Your task to perform on an android device: Search for "razer kraken" on bestbuy, select the first entry, add it to the cart, then select checkout. Image 0: 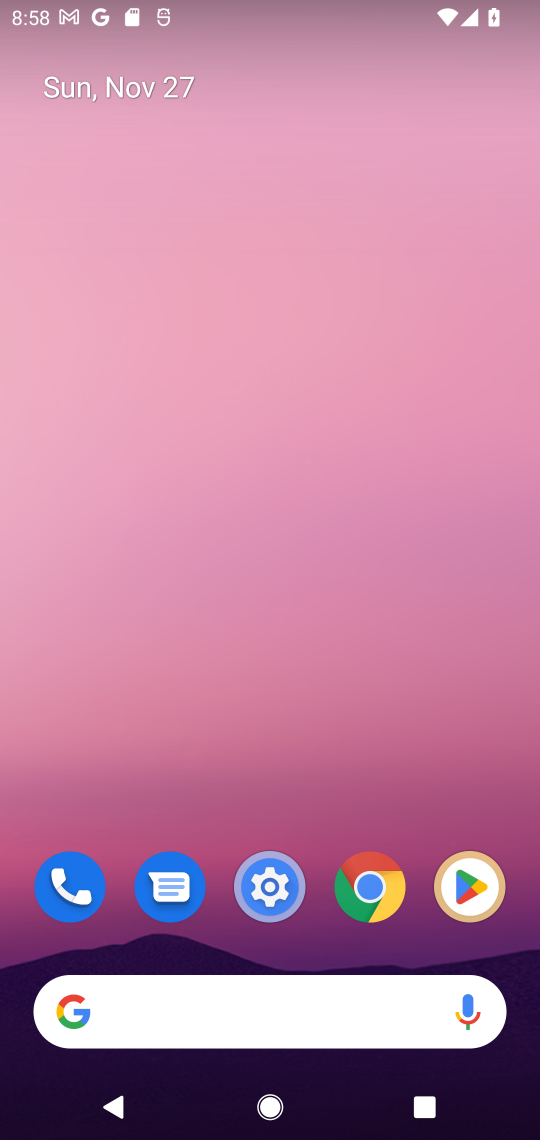
Step 0: click (164, 1018)
Your task to perform on an android device: Search for "razer kraken" on bestbuy, select the first entry, add it to the cart, then select checkout. Image 1: 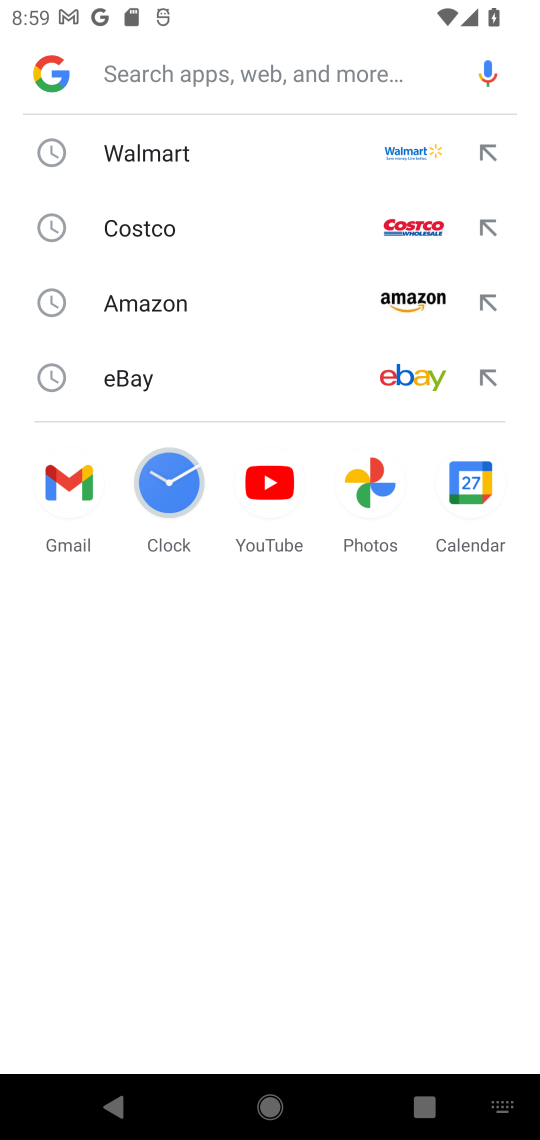
Step 1: type "bestbuy"
Your task to perform on an android device: Search for "razer kraken" on bestbuy, select the first entry, add it to the cart, then select checkout. Image 2: 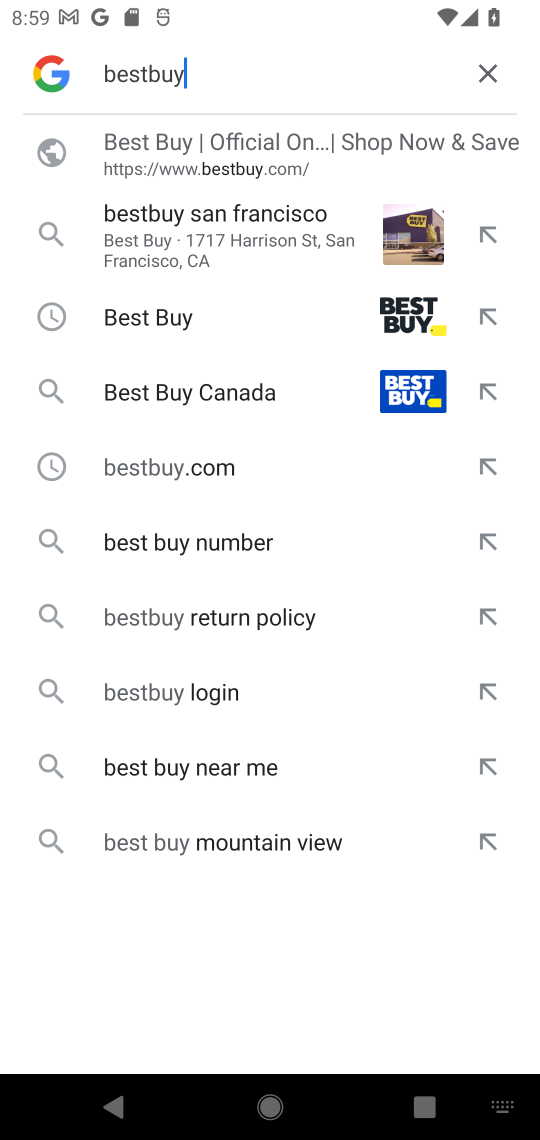
Step 2: click (120, 177)
Your task to perform on an android device: Search for "razer kraken" on bestbuy, select the first entry, add it to the cart, then select checkout. Image 3: 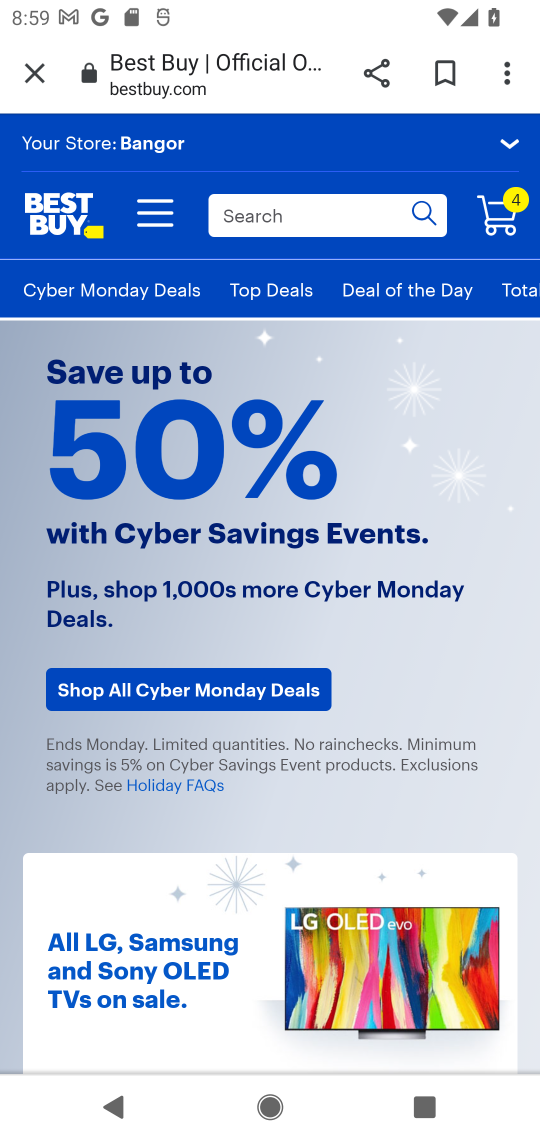
Step 3: click (315, 233)
Your task to perform on an android device: Search for "razer kraken" on bestbuy, select the first entry, add it to the cart, then select checkout. Image 4: 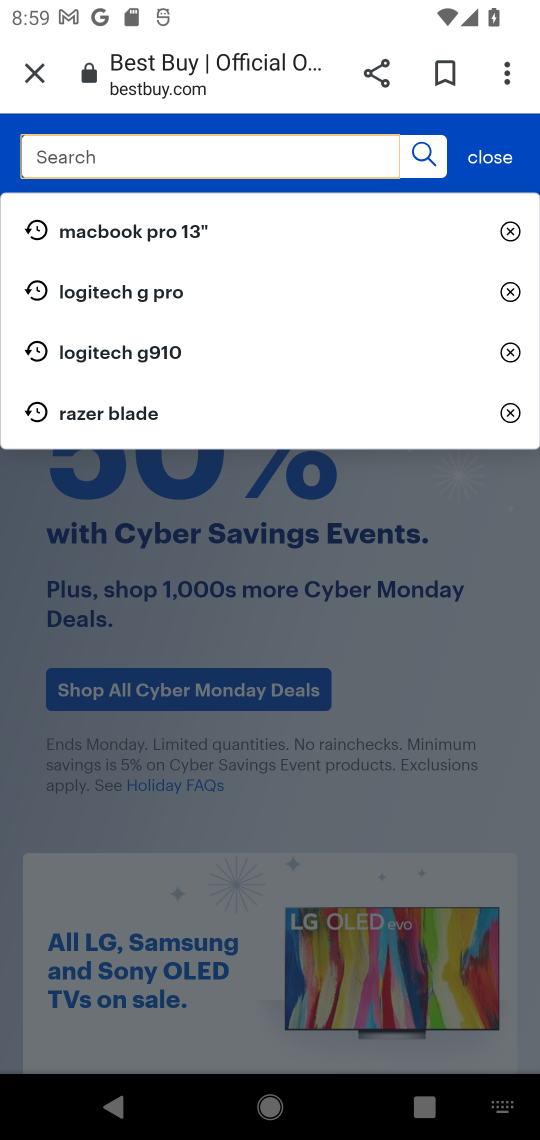
Step 4: type "razerkarken"
Your task to perform on an android device: Search for "razer kraken" on bestbuy, select the first entry, add it to the cart, then select checkout. Image 5: 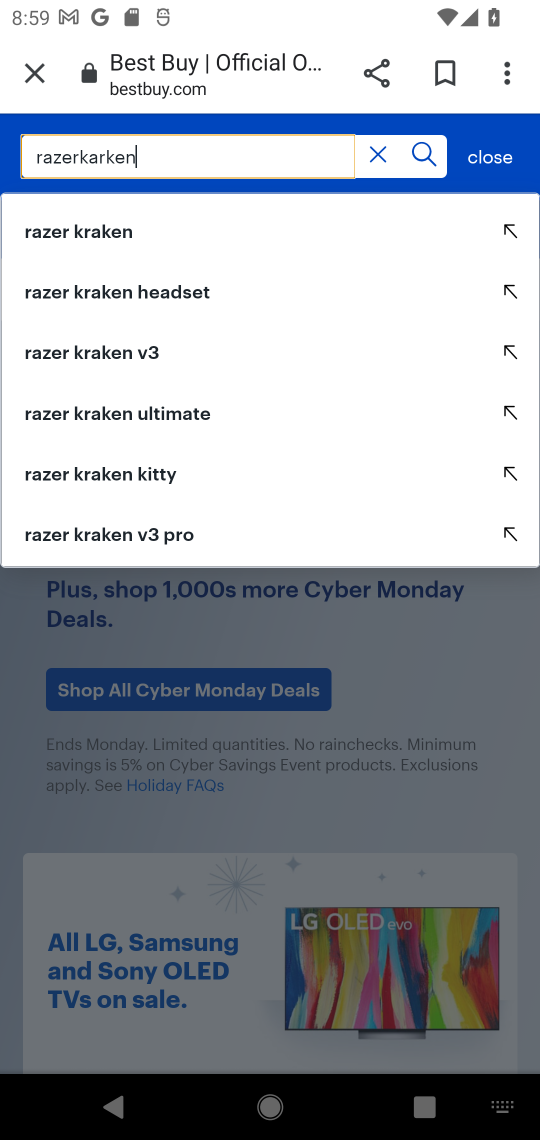
Step 5: click (136, 255)
Your task to perform on an android device: Search for "razer kraken" on bestbuy, select the first entry, add it to the cart, then select checkout. Image 6: 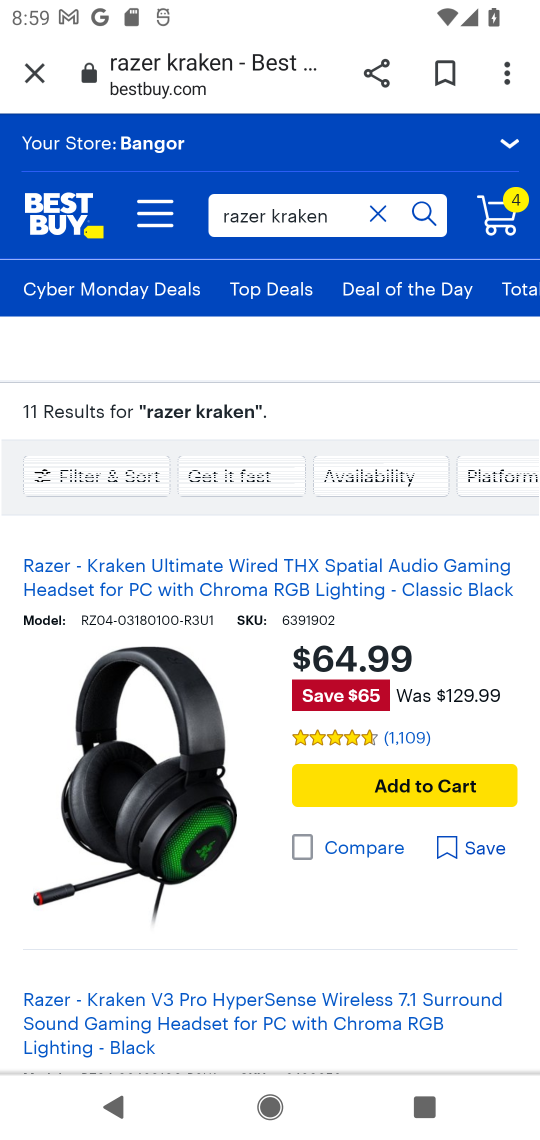
Step 6: drag from (294, 878) to (303, 781)
Your task to perform on an android device: Search for "razer kraken" on bestbuy, select the first entry, add it to the cart, then select checkout. Image 7: 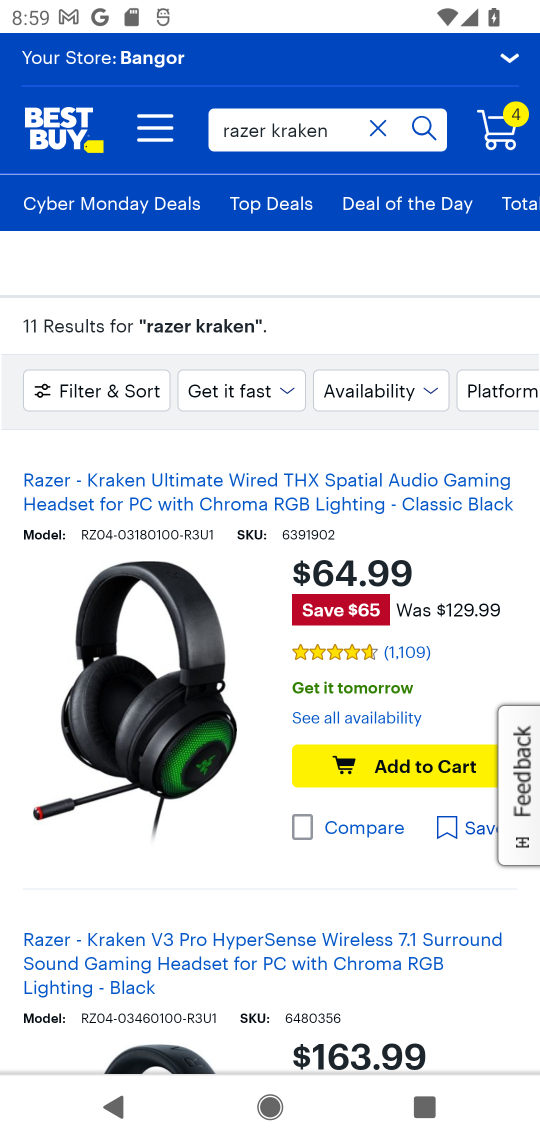
Step 7: click (417, 781)
Your task to perform on an android device: Search for "razer kraken" on bestbuy, select the first entry, add it to the cart, then select checkout. Image 8: 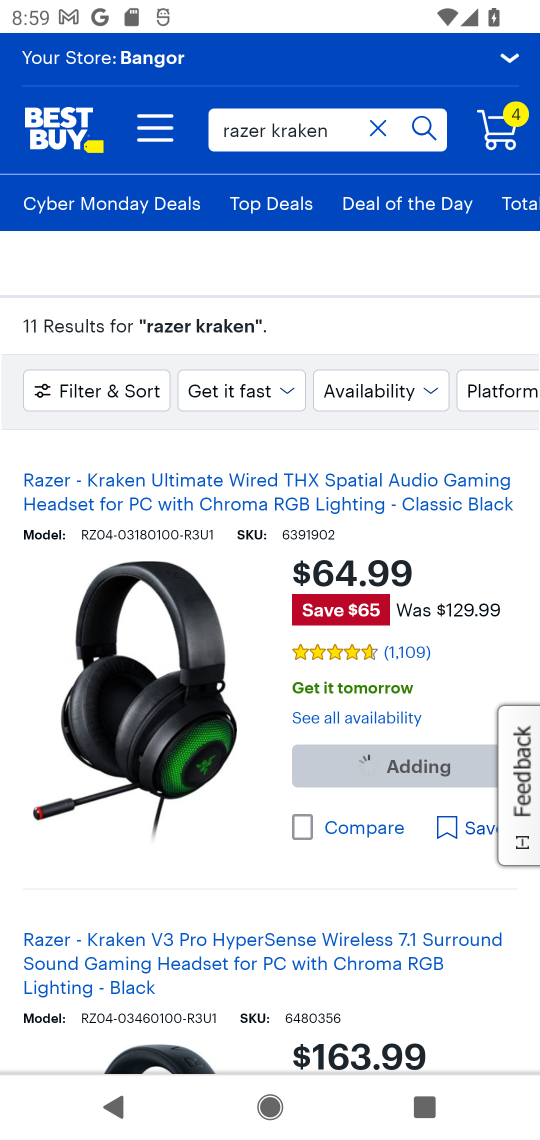
Step 8: task complete